Your task to perform on an android device: check storage Image 0: 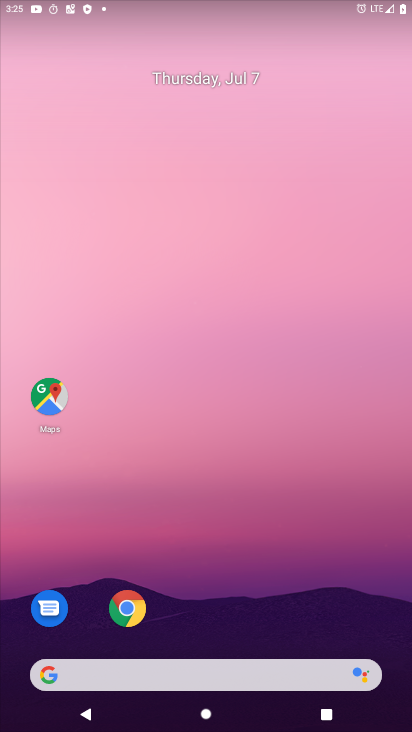
Step 0: drag from (238, 713) to (238, 53)
Your task to perform on an android device: check storage Image 1: 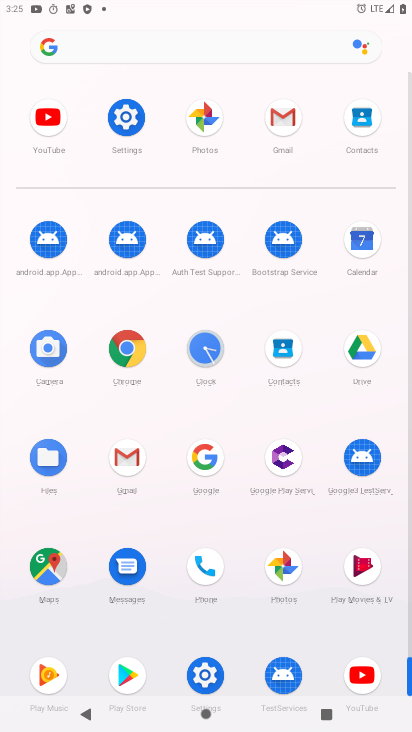
Step 1: click (207, 678)
Your task to perform on an android device: check storage Image 2: 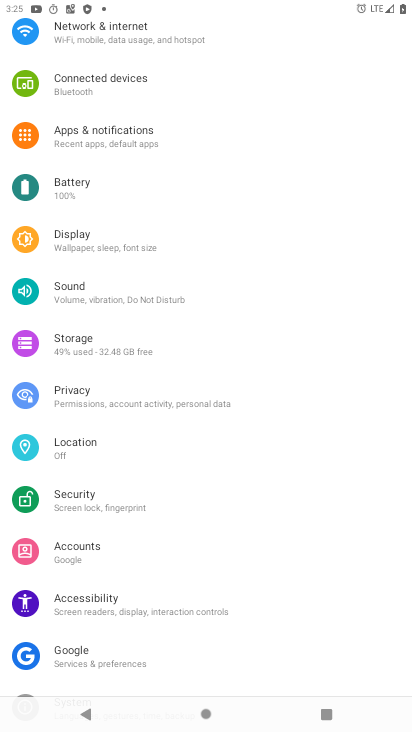
Step 2: click (74, 350)
Your task to perform on an android device: check storage Image 3: 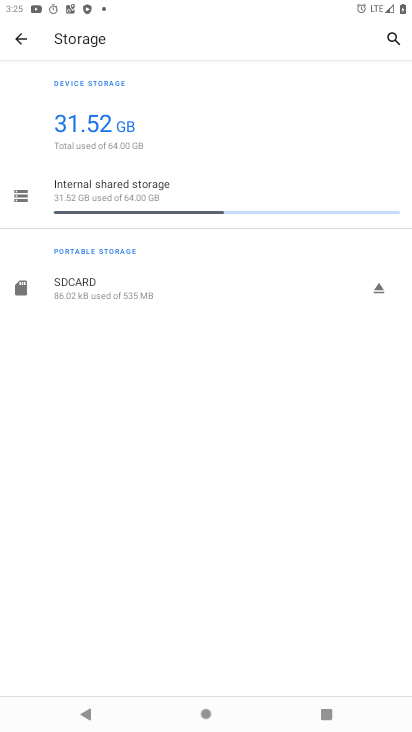
Step 3: task complete